Your task to perform on an android device: Go to Android settings Image 0: 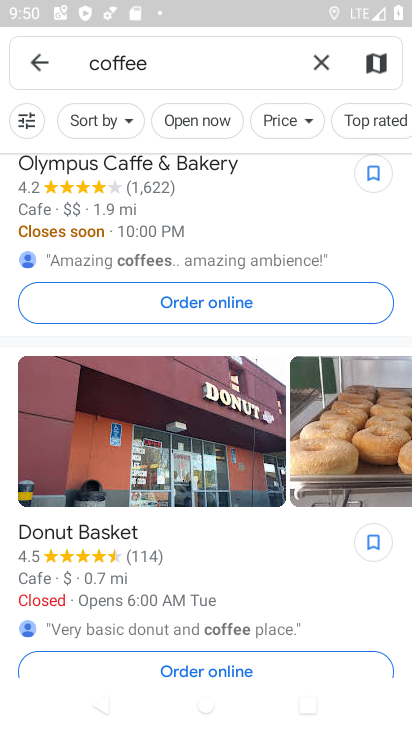
Step 0: press home button
Your task to perform on an android device: Go to Android settings Image 1: 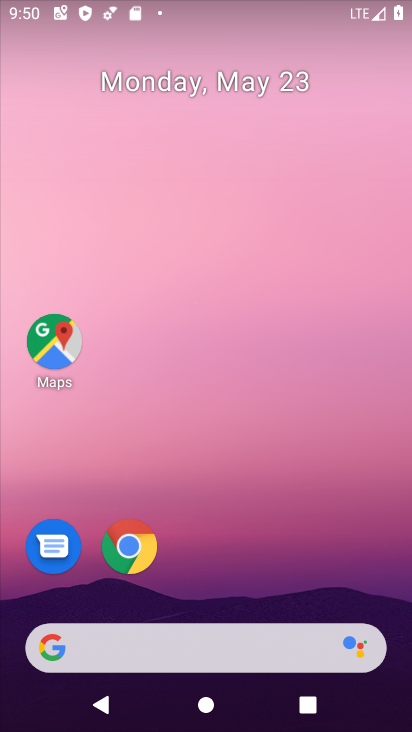
Step 1: drag from (393, 619) to (306, 13)
Your task to perform on an android device: Go to Android settings Image 2: 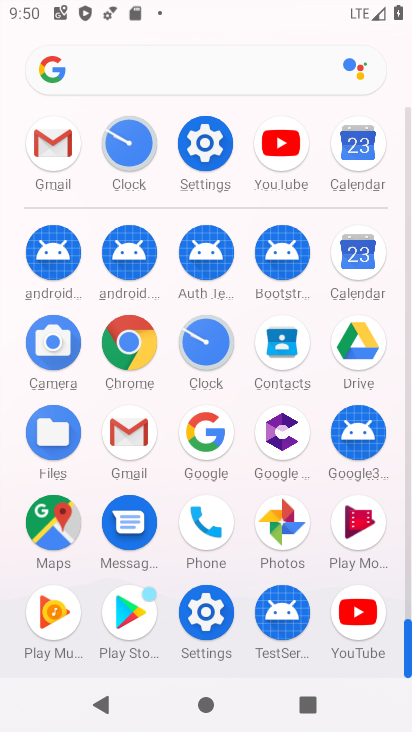
Step 2: click (202, 609)
Your task to perform on an android device: Go to Android settings Image 3: 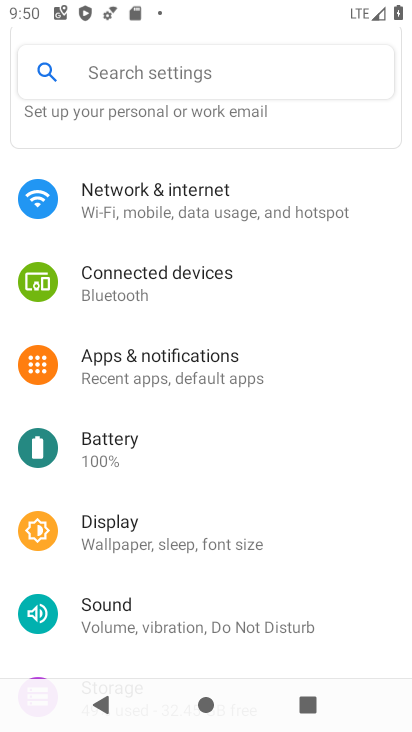
Step 3: drag from (267, 588) to (255, 233)
Your task to perform on an android device: Go to Android settings Image 4: 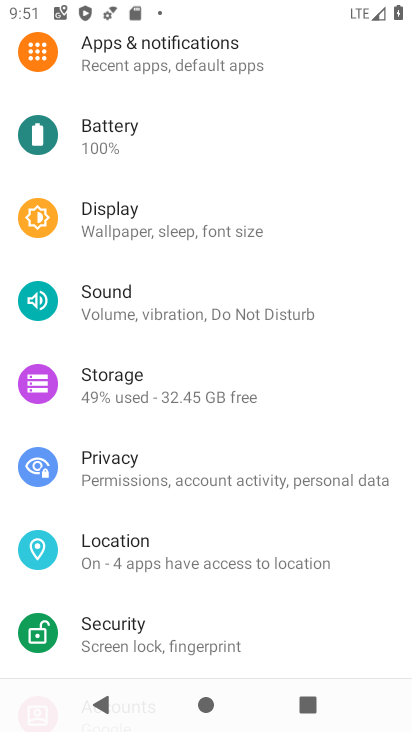
Step 4: drag from (309, 633) to (238, 143)
Your task to perform on an android device: Go to Android settings Image 5: 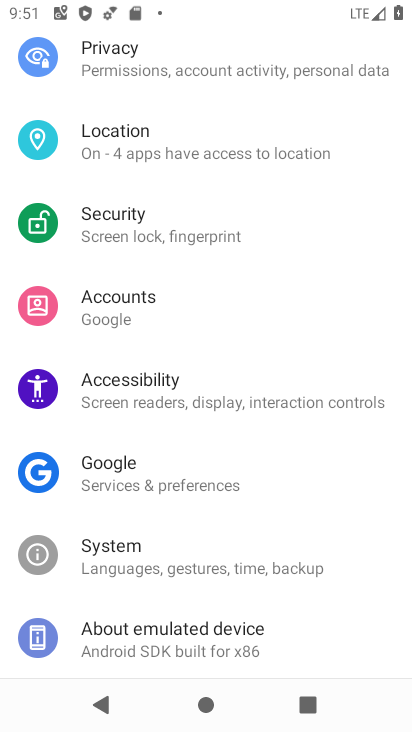
Step 5: click (139, 638)
Your task to perform on an android device: Go to Android settings Image 6: 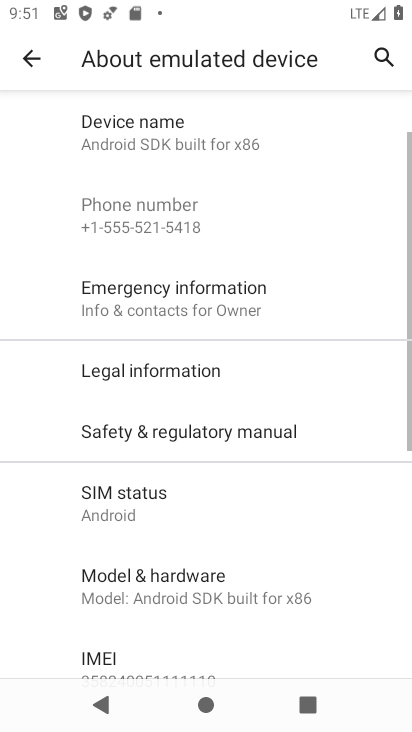
Step 6: task complete